Your task to perform on an android device: toggle notification dots Image 0: 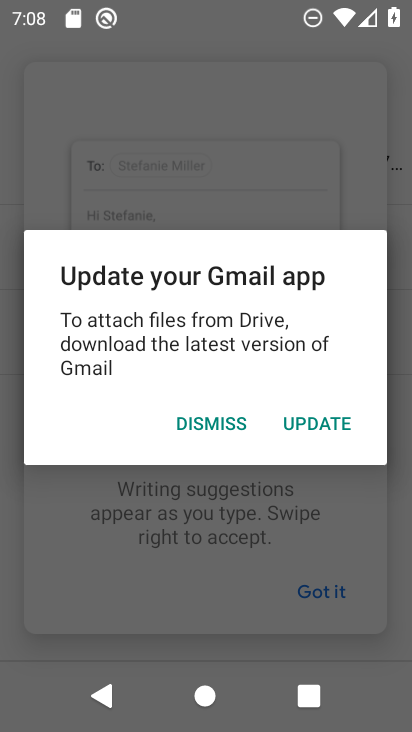
Step 0: press home button
Your task to perform on an android device: toggle notification dots Image 1: 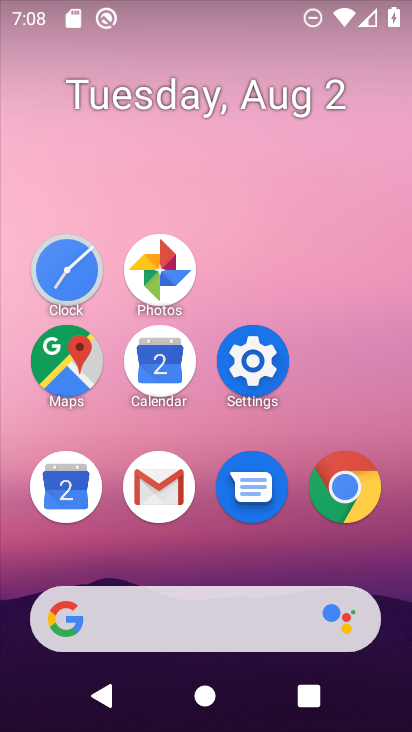
Step 1: click (254, 365)
Your task to perform on an android device: toggle notification dots Image 2: 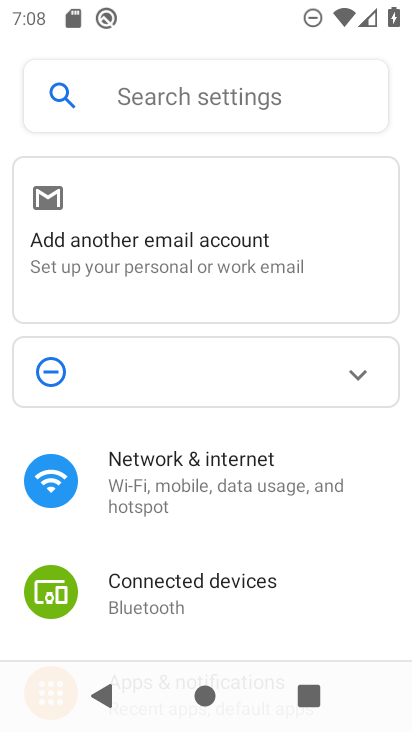
Step 2: drag from (240, 554) to (236, 340)
Your task to perform on an android device: toggle notification dots Image 3: 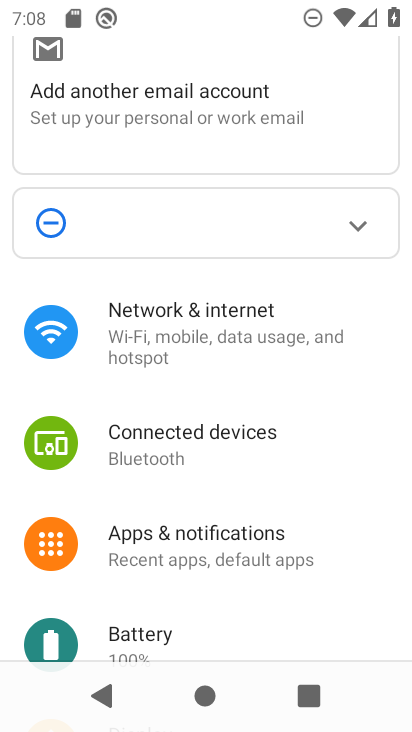
Step 3: click (202, 535)
Your task to perform on an android device: toggle notification dots Image 4: 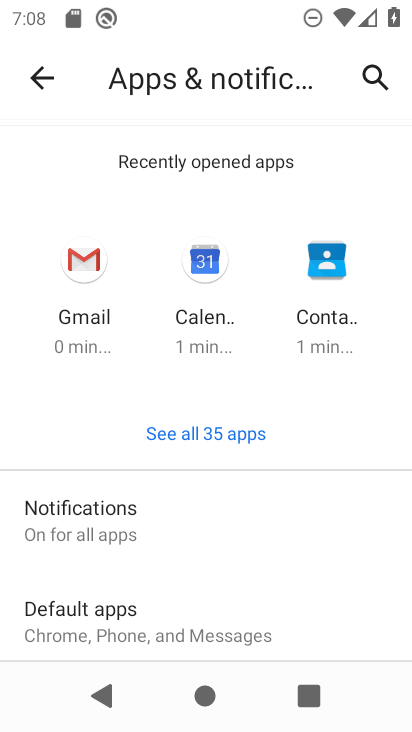
Step 4: drag from (254, 568) to (253, 242)
Your task to perform on an android device: toggle notification dots Image 5: 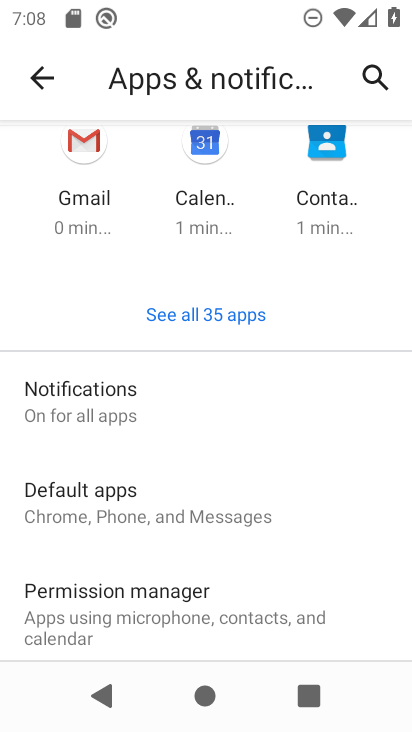
Step 5: click (96, 386)
Your task to perform on an android device: toggle notification dots Image 6: 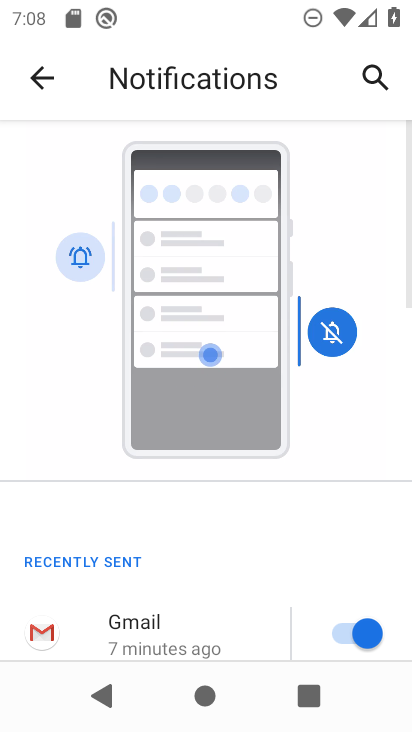
Step 6: drag from (270, 532) to (255, 173)
Your task to perform on an android device: toggle notification dots Image 7: 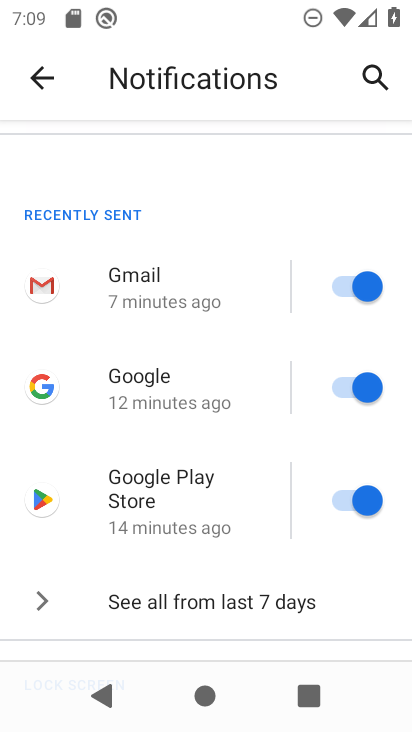
Step 7: drag from (263, 559) to (266, 189)
Your task to perform on an android device: toggle notification dots Image 8: 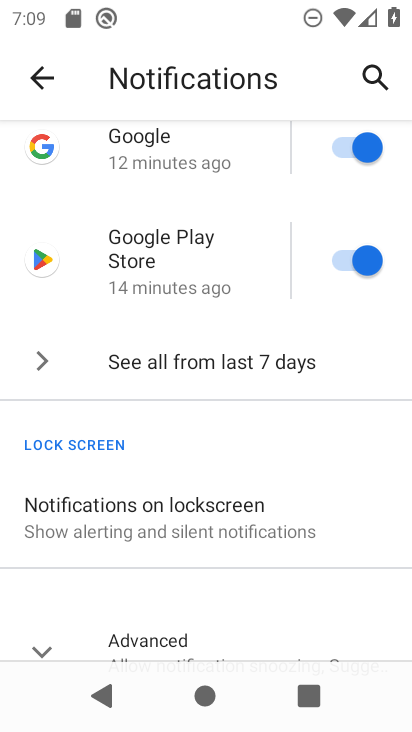
Step 8: drag from (295, 593) to (217, 217)
Your task to perform on an android device: toggle notification dots Image 9: 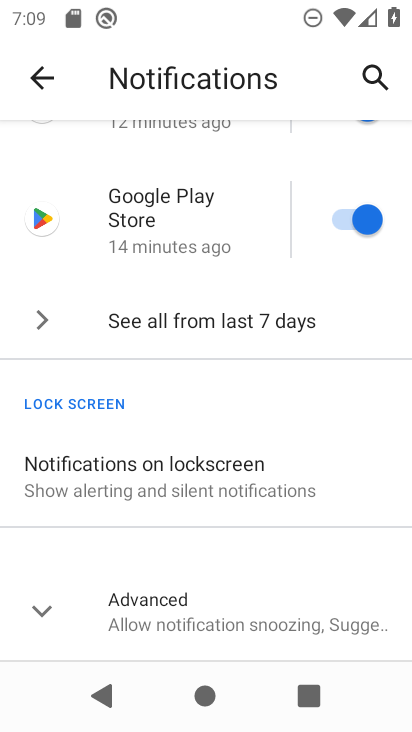
Step 9: click (43, 611)
Your task to perform on an android device: toggle notification dots Image 10: 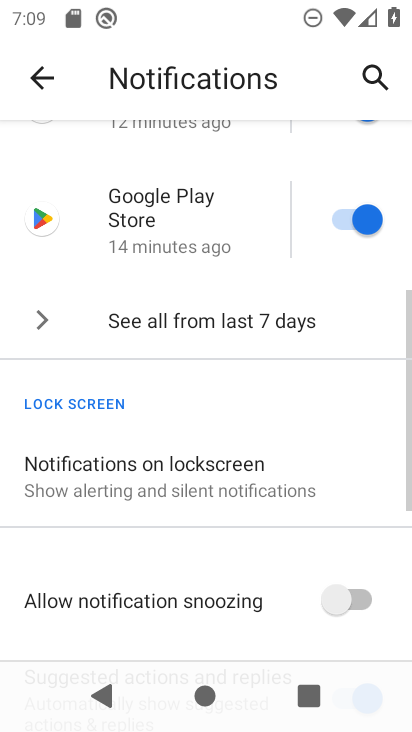
Step 10: drag from (208, 551) to (149, 123)
Your task to perform on an android device: toggle notification dots Image 11: 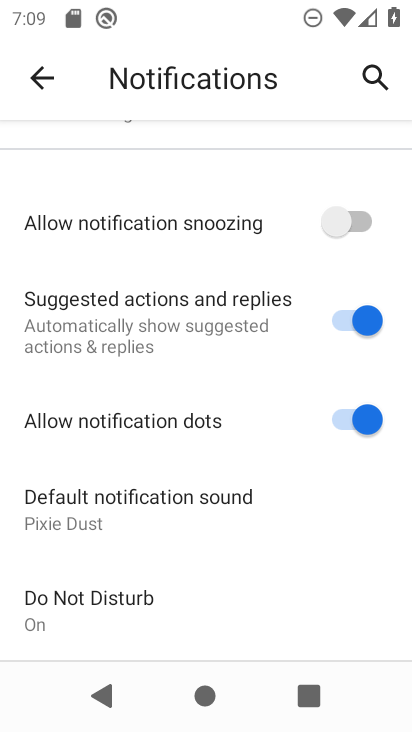
Step 11: click (359, 427)
Your task to perform on an android device: toggle notification dots Image 12: 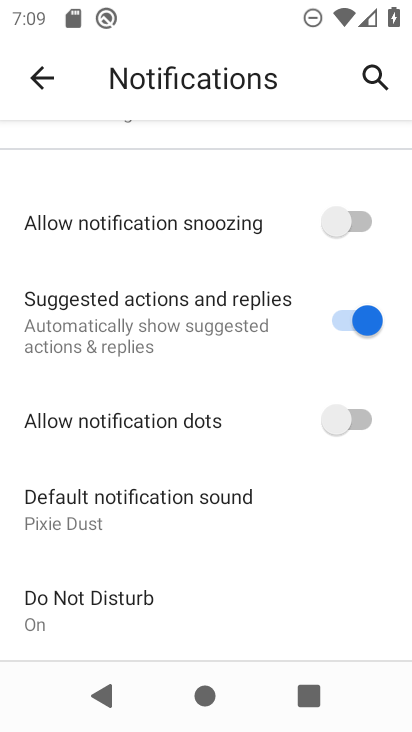
Step 12: task complete